Your task to perform on an android device: Open Amazon Image 0: 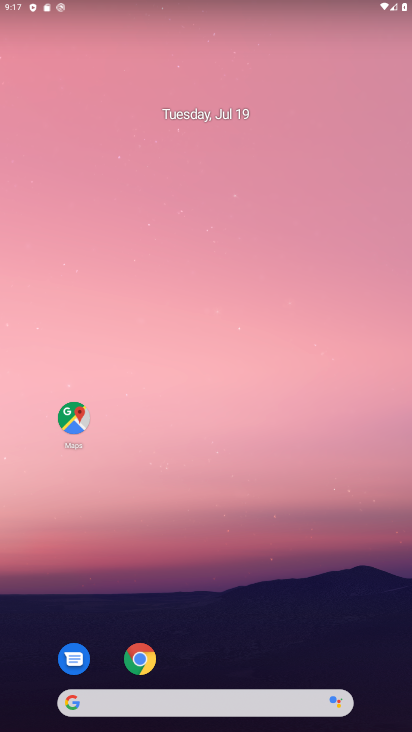
Step 0: drag from (212, 520) to (243, 269)
Your task to perform on an android device: Open Amazon Image 1: 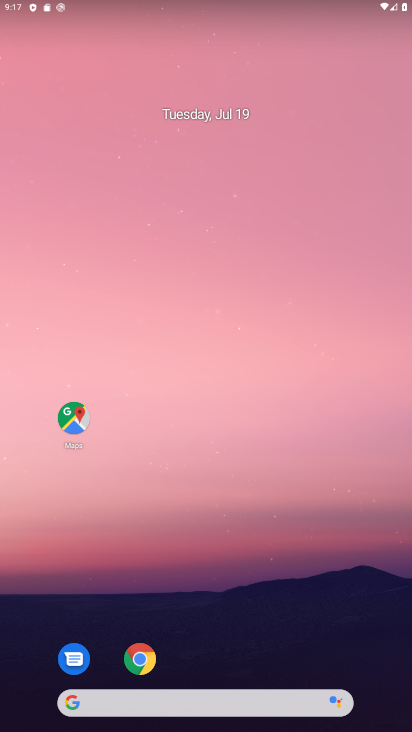
Step 1: drag from (228, 633) to (294, 175)
Your task to perform on an android device: Open Amazon Image 2: 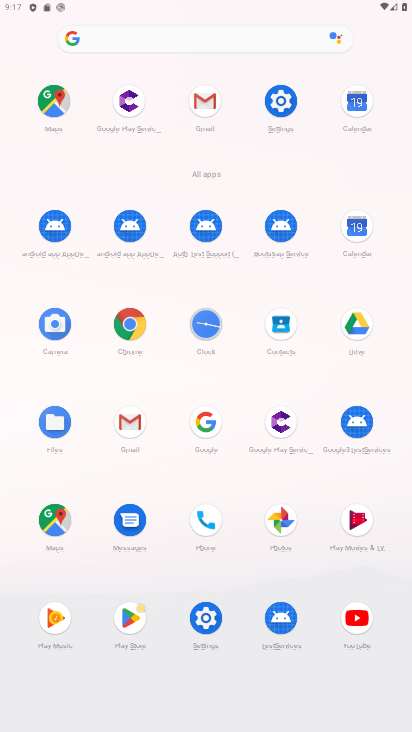
Step 2: click (127, 325)
Your task to perform on an android device: Open Amazon Image 3: 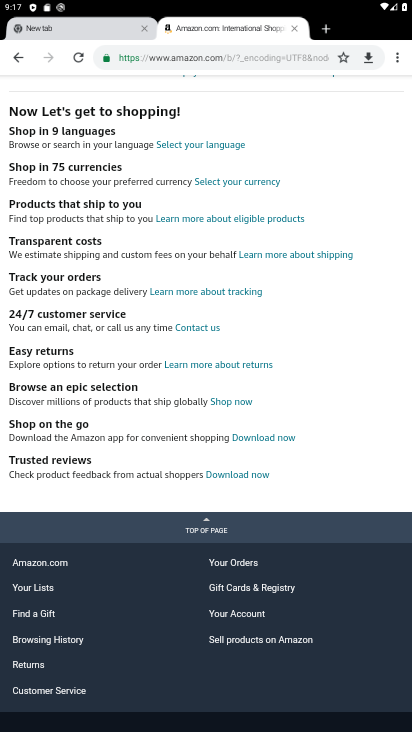
Step 3: click (325, 23)
Your task to perform on an android device: Open Amazon Image 4: 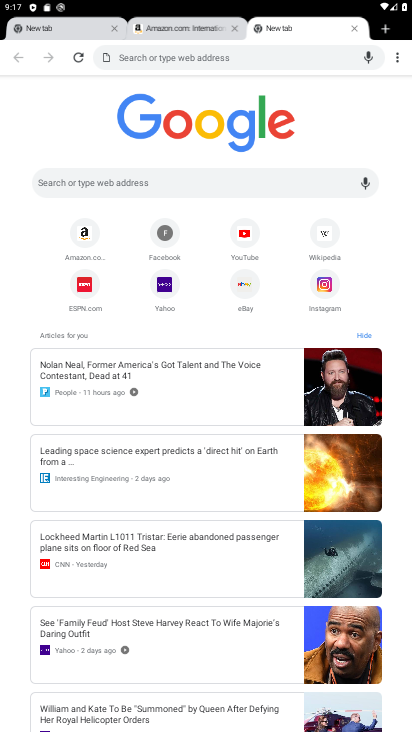
Step 4: click (77, 239)
Your task to perform on an android device: Open Amazon Image 5: 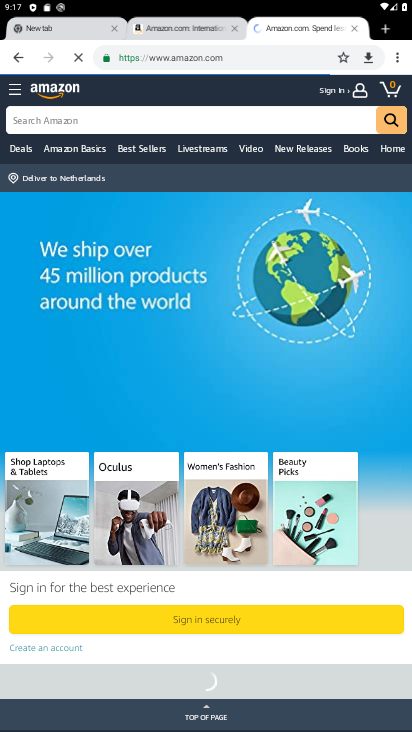
Step 5: task complete